Your task to perform on an android device: What's on my calendar tomorrow? Image 0: 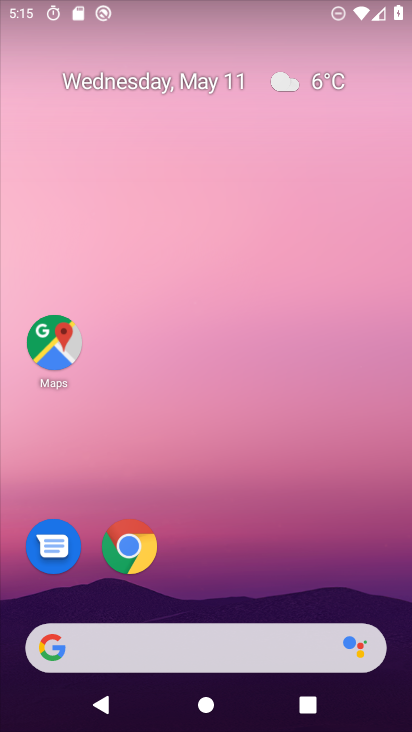
Step 0: press home button
Your task to perform on an android device: What's on my calendar tomorrow? Image 1: 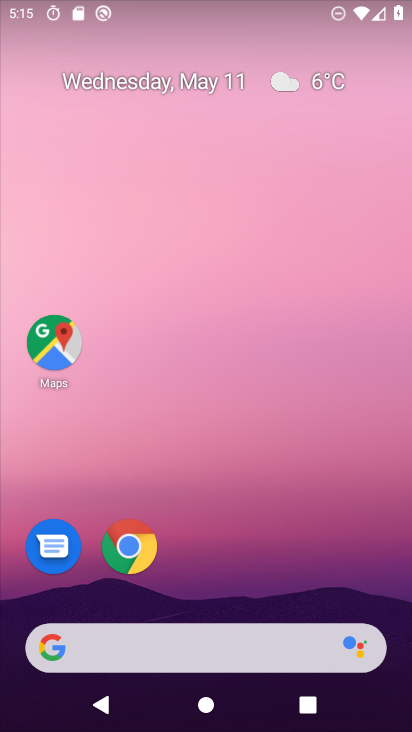
Step 1: drag from (161, 627) to (162, 217)
Your task to perform on an android device: What's on my calendar tomorrow? Image 2: 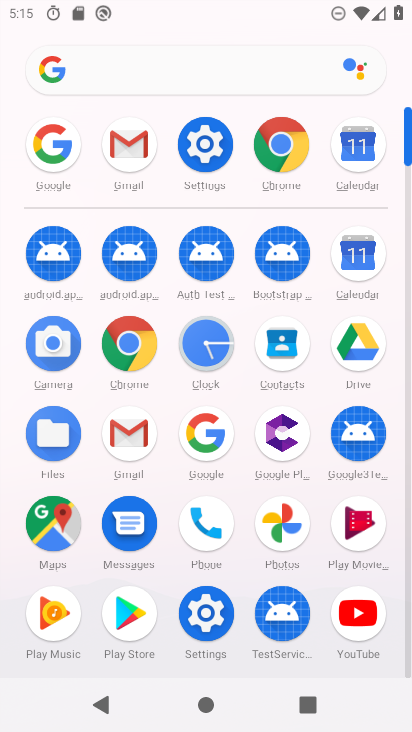
Step 2: click (358, 248)
Your task to perform on an android device: What's on my calendar tomorrow? Image 3: 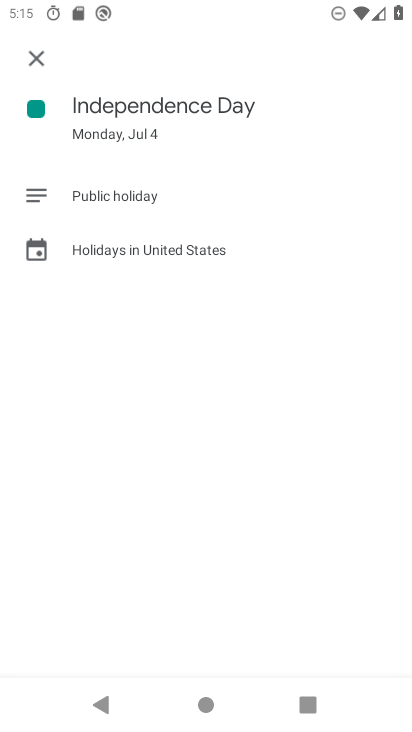
Step 3: click (30, 61)
Your task to perform on an android device: What's on my calendar tomorrow? Image 4: 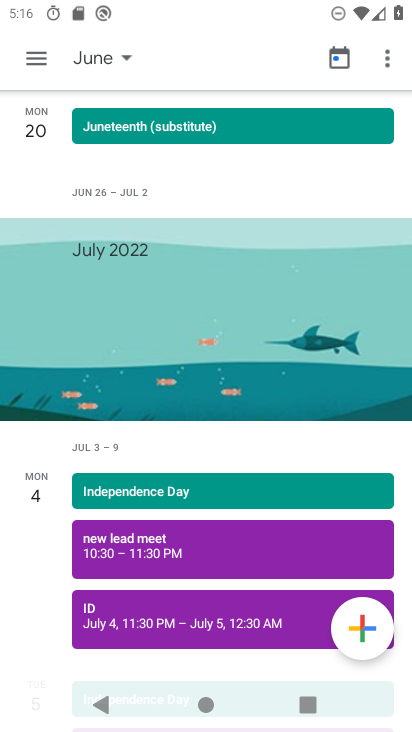
Step 4: click (103, 60)
Your task to perform on an android device: What's on my calendar tomorrow? Image 5: 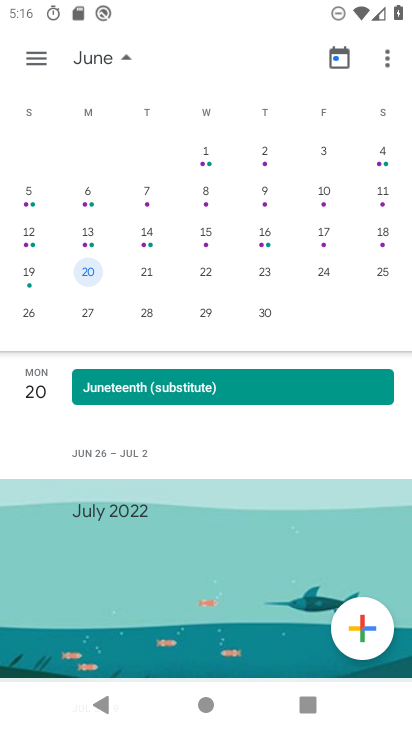
Step 5: drag from (22, 158) to (318, 167)
Your task to perform on an android device: What's on my calendar tomorrow? Image 6: 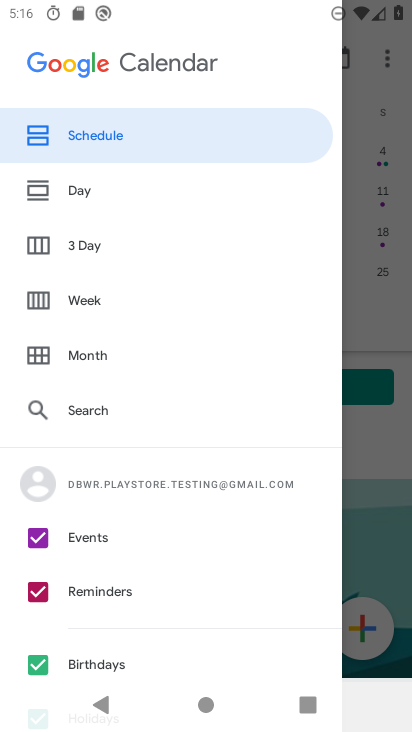
Step 6: click (395, 333)
Your task to perform on an android device: What's on my calendar tomorrow? Image 7: 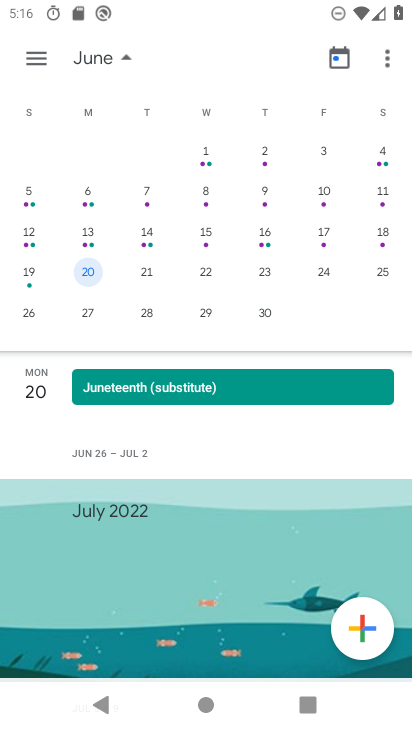
Step 7: drag from (14, 252) to (370, 260)
Your task to perform on an android device: What's on my calendar tomorrow? Image 8: 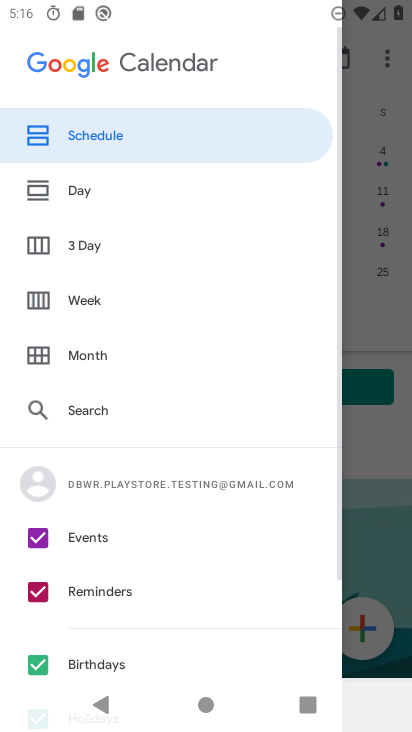
Step 8: click (390, 336)
Your task to perform on an android device: What's on my calendar tomorrow? Image 9: 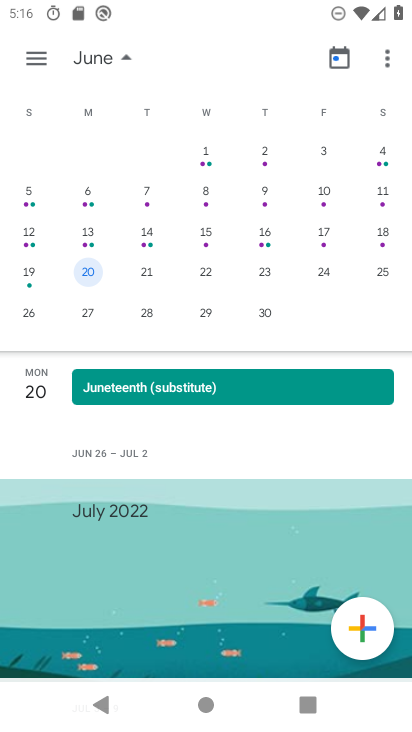
Step 9: drag from (182, 203) to (404, 219)
Your task to perform on an android device: What's on my calendar tomorrow? Image 10: 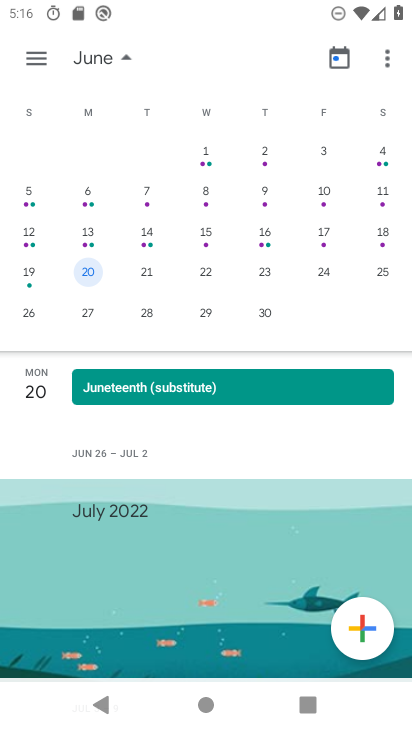
Step 10: drag from (243, 220) to (407, 231)
Your task to perform on an android device: What's on my calendar tomorrow? Image 11: 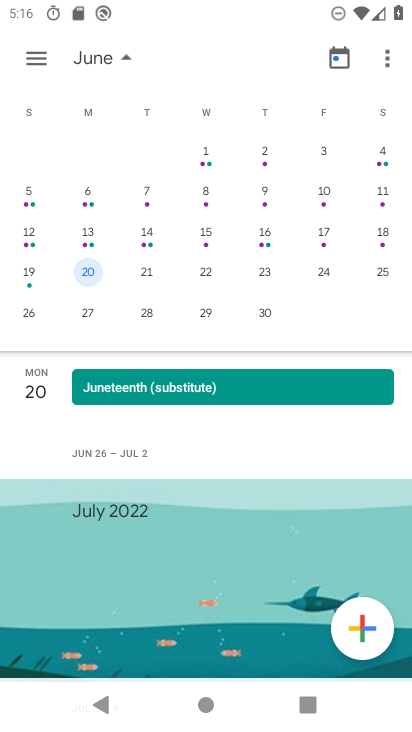
Step 11: drag from (139, 220) to (410, 210)
Your task to perform on an android device: What's on my calendar tomorrow? Image 12: 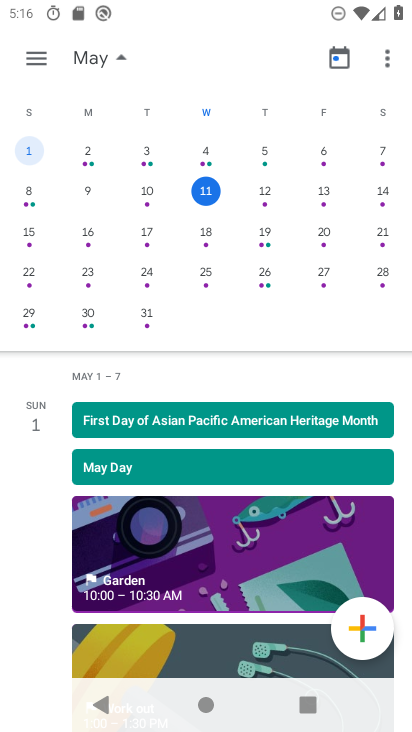
Step 12: click (264, 190)
Your task to perform on an android device: What's on my calendar tomorrow? Image 13: 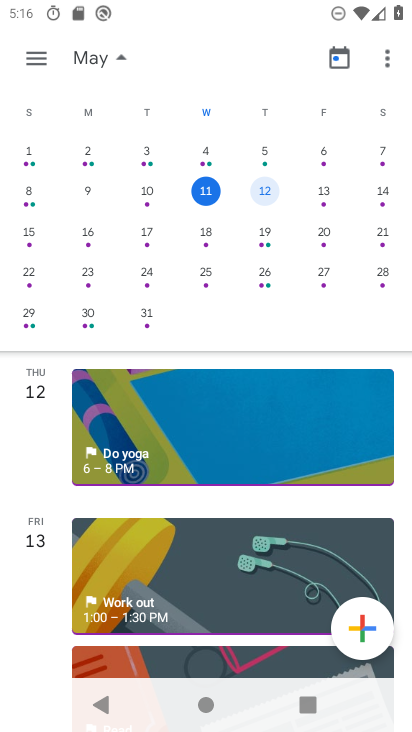
Step 13: task complete